Your task to perform on an android device: Go to network settings Image 0: 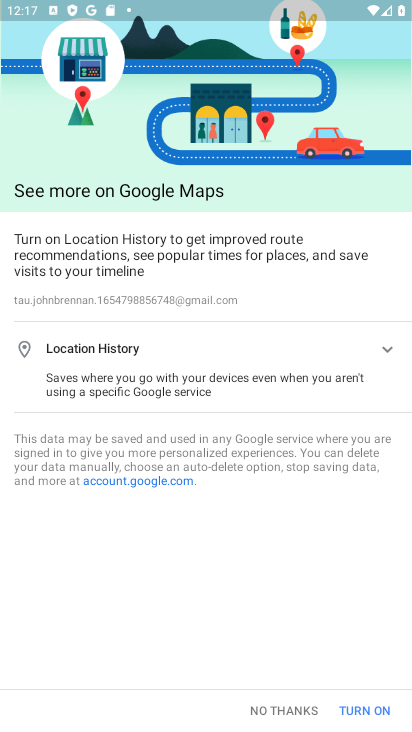
Step 0: press home button
Your task to perform on an android device: Go to network settings Image 1: 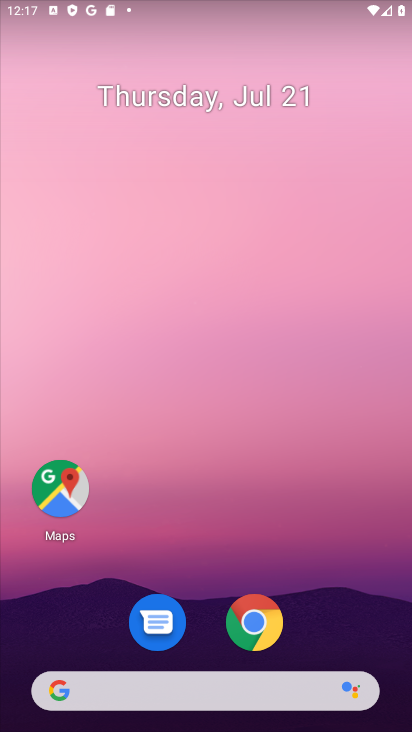
Step 1: drag from (277, 723) to (353, 267)
Your task to perform on an android device: Go to network settings Image 2: 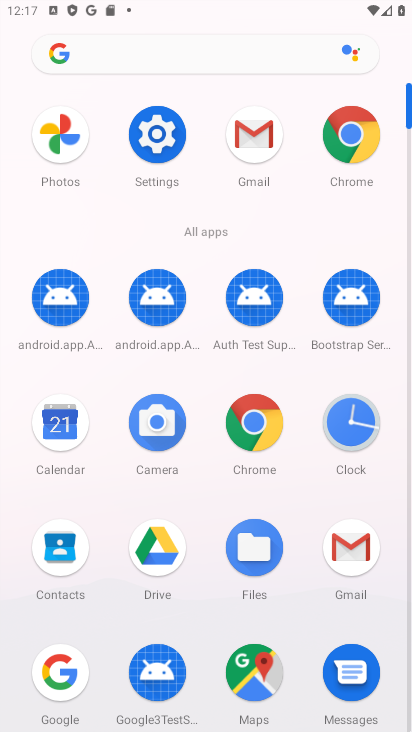
Step 2: click (163, 139)
Your task to perform on an android device: Go to network settings Image 3: 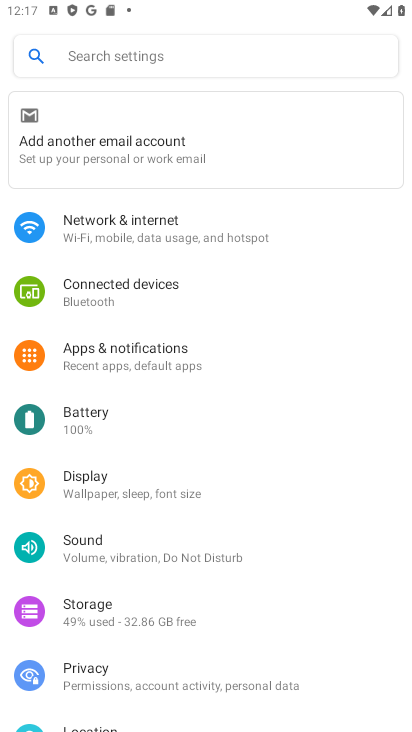
Step 3: click (117, 223)
Your task to perform on an android device: Go to network settings Image 4: 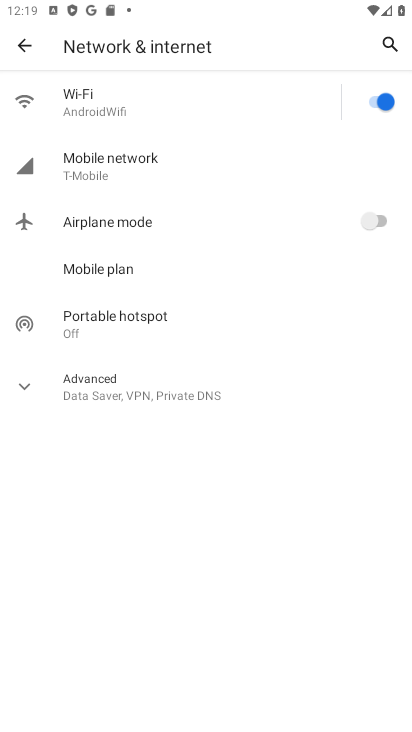
Step 4: task complete